Your task to perform on an android device: toggle wifi Image 0: 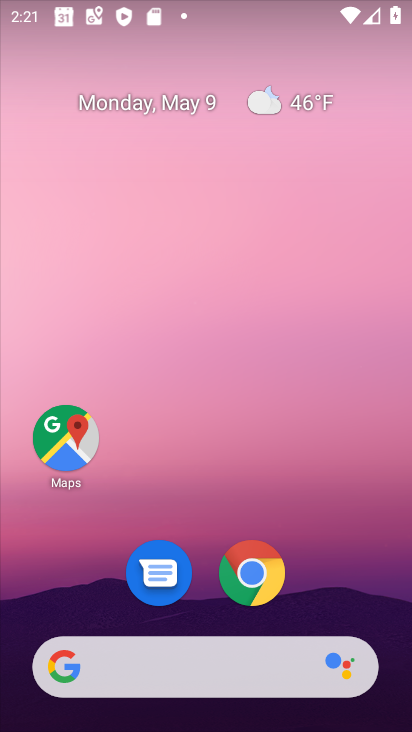
Step 0: drag from (194, 596) to (187, 228)
Your task to perform on an android device: toggle wifi Image 1: 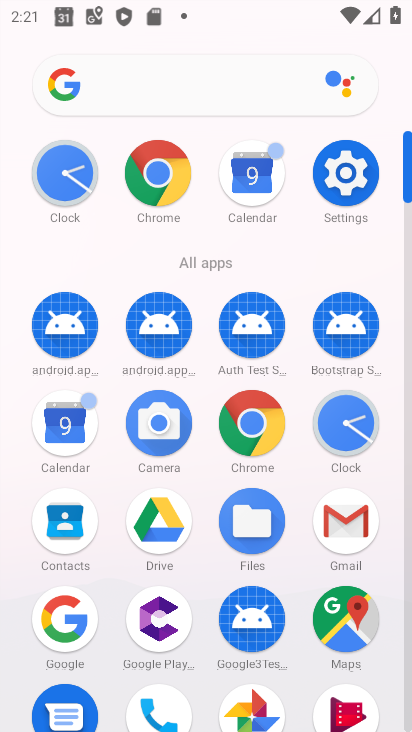
Step 1: click (347, 178)
Your task to perform on an android device: toggle wifi Image 2: 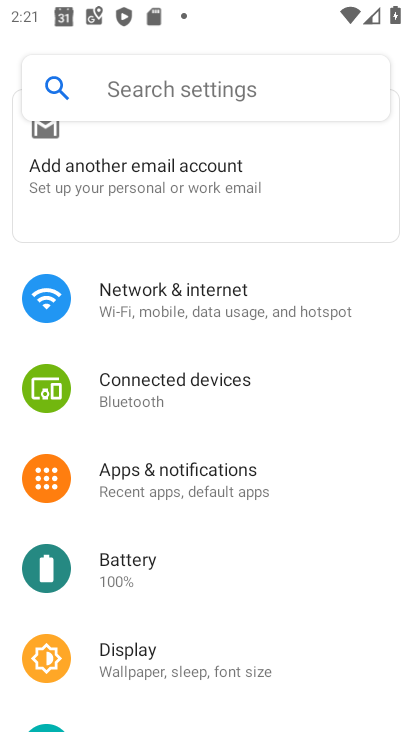
Step 2: click (217, 296)
Your task to perform on an android device: toggle wifi Image 3: 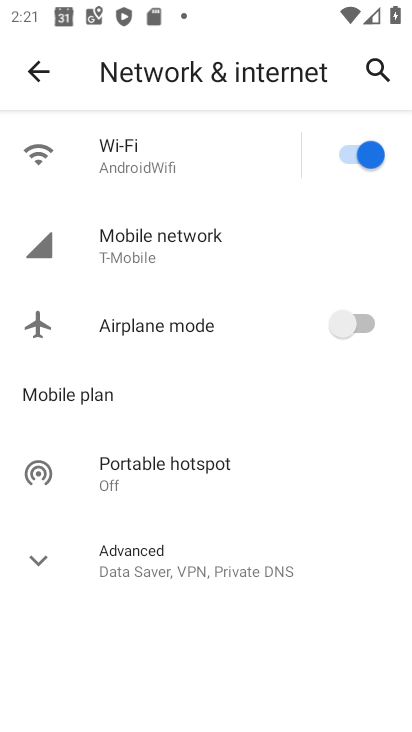
Step 3: click (361, 155)
Your task to perform on an android device: toggle wifi Image 4: 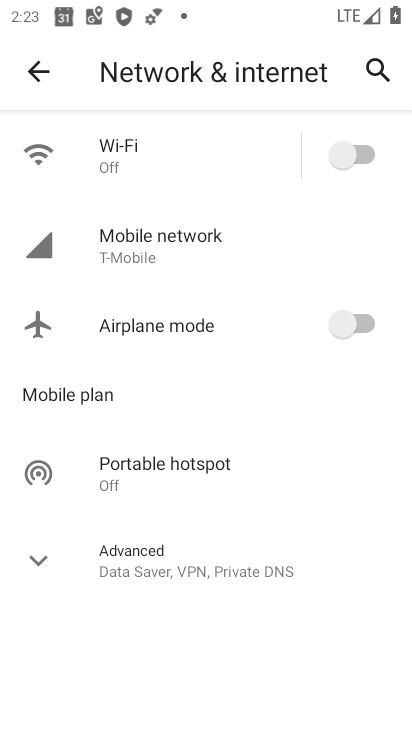
Step 4: task complete